Your task to perform on an android device: Open Chrome and go to settings Image 0: 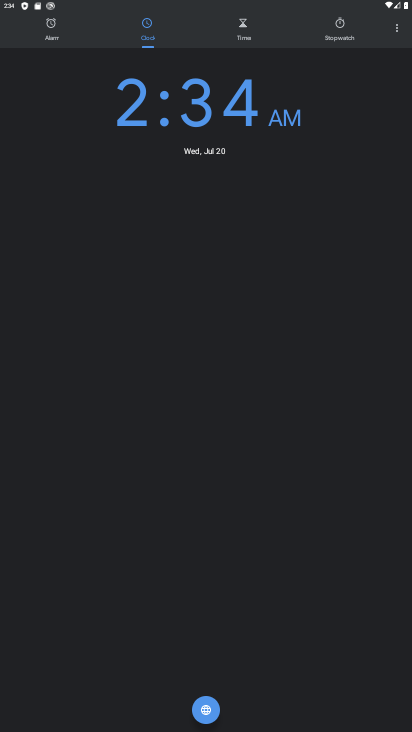
Step 0: press home button
Your task to perform on an android device: Open Chrome and go to settings Image 1: 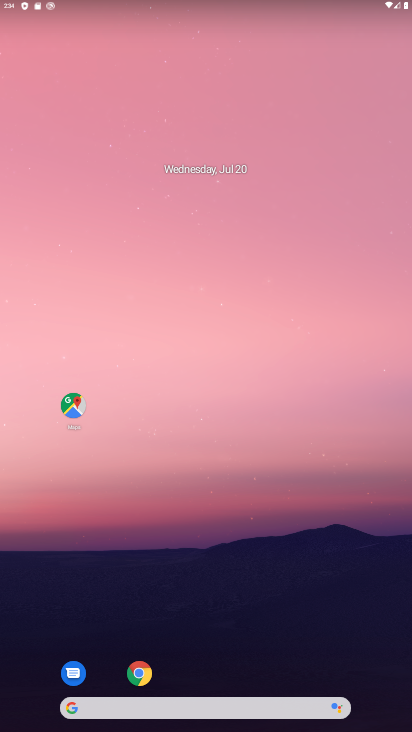
Step 1: drag from (257, 437) to (227, 200)
Your task to perform on an android device: Open Chrome and go to settings Image 2: 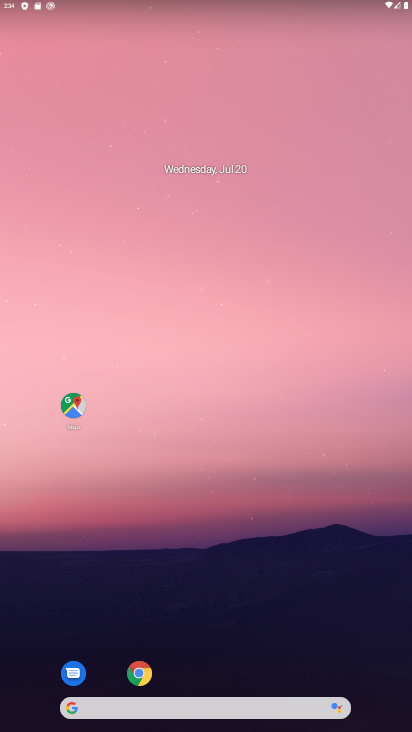
Step 2: drag from (243, 502) to (234, 234)
Your task to perform on an android device: Open Chrome and go to settings Image 3: 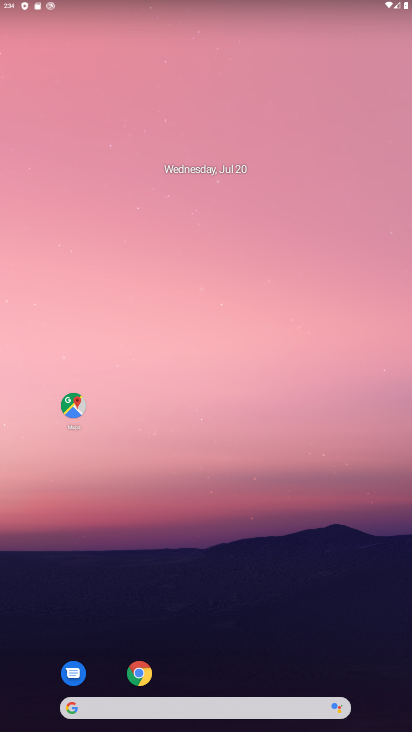
Step 3: drag from (245, 337) to (258, 105)
Your task to perform on an android device: Open Chrome and go to settings Image 4: 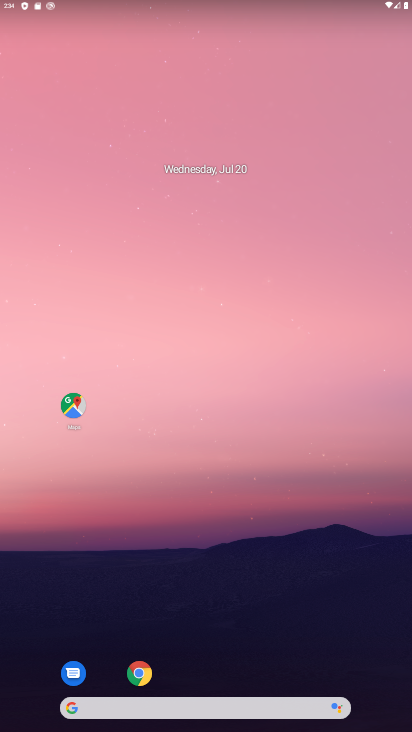
Step 4: drag from (276, 659) to (224, 84)
Your task to perform on an android device: Open Chrome and go to settings Image 5: 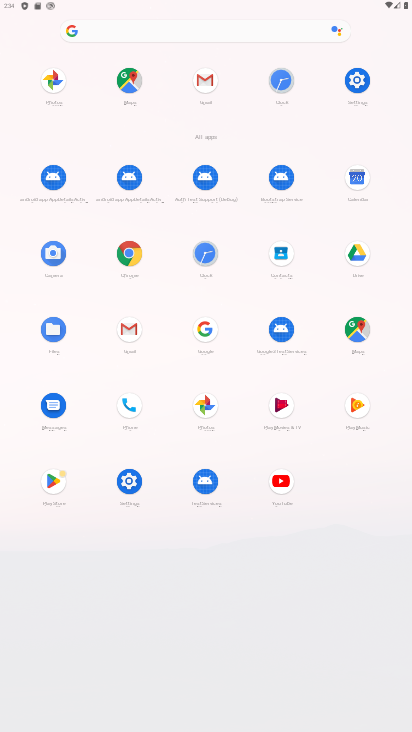
Step 5: click (124, 252)
Your task to perform on an android device: Open Chrome and go to settings Image 6: 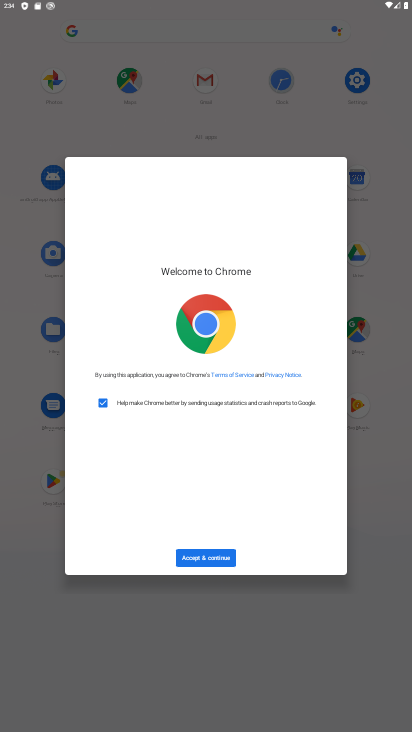
Step 6: click (207, 561)
Your task to perform on an android device: Open Chrome and go to settings Image 7: 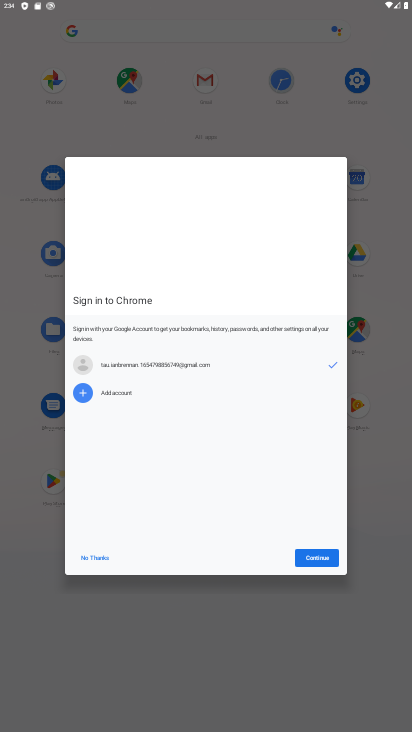
Step 7: click (317, 556)
Your task to perform on an android device: Open Chrome and go to settings Image 8: 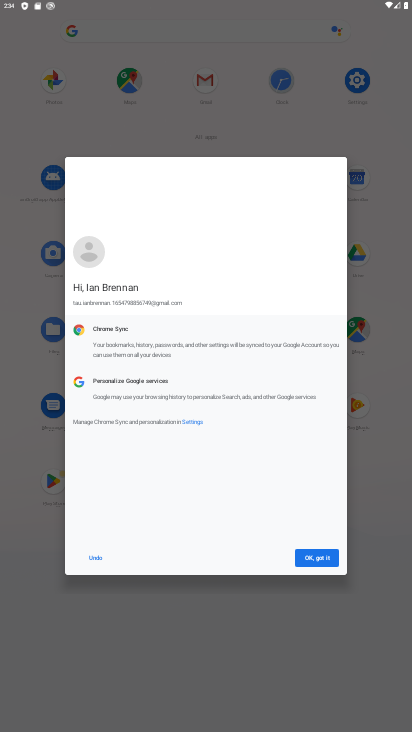
Step 8: click (317, 556)
Your task to perform on an android device: Open Chrome and go to settings Image 9: 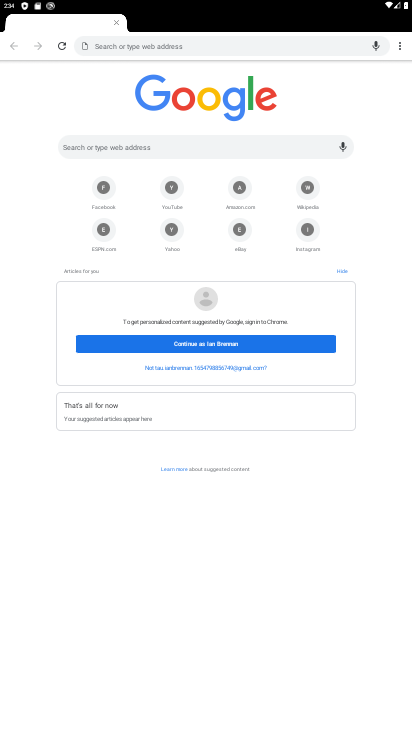
Step 9: task complete